Your task to perform on an android device: toggle data saver in the chrome app Image 0: 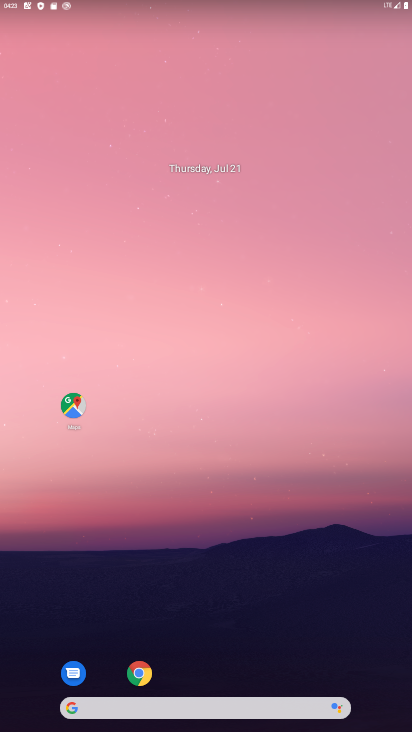
Step 0: drag from (290, 615) to (274, 44)
Your task to perform on an android device: toggle data saver in the chrome app Image 1: 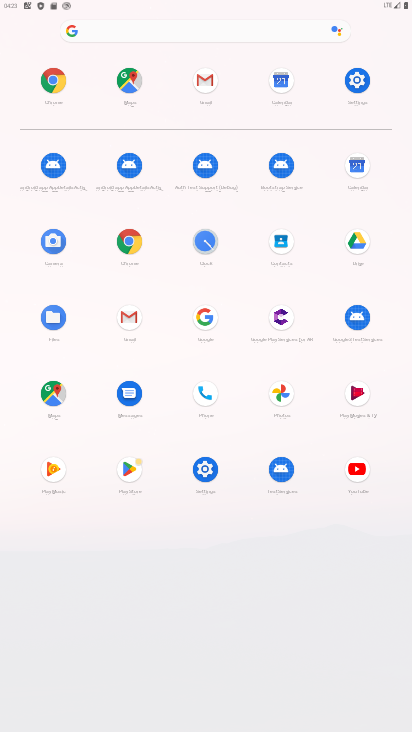
Step 1: click (65, 77)
Your task to perform on an android device: toggle data saver in the chrome app Image 2: 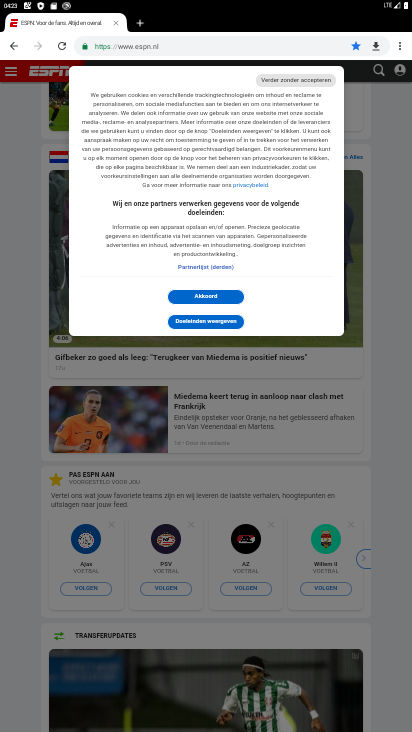
Step 2: drag from (402, 44) to (319, 298)
Your task to perform on an android device: toggle data saver in the chrome app Image 3: 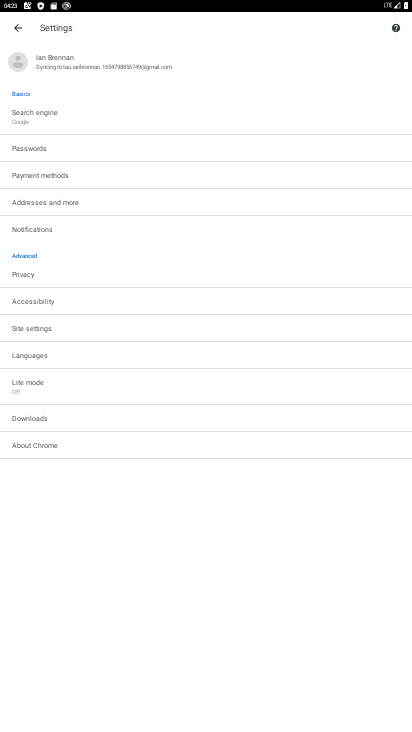
Step 3: click (53, 384)
Your task to perform on an android device: toggle data saver in the chrome app Image 4: 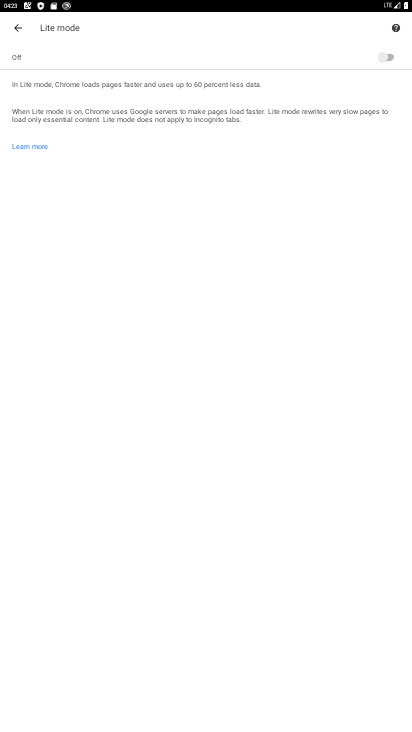
Step 4: click (390, 55)
Your task to perform on an android device: toggle data saver in the chrome app Image 5: 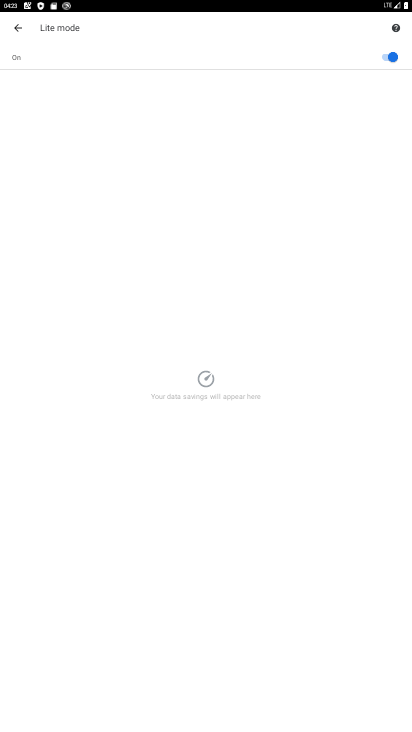
Step 5: task complete